Your task to perform on an android device: Add dell alienware to the cart on target, then select checkout. Image 0: 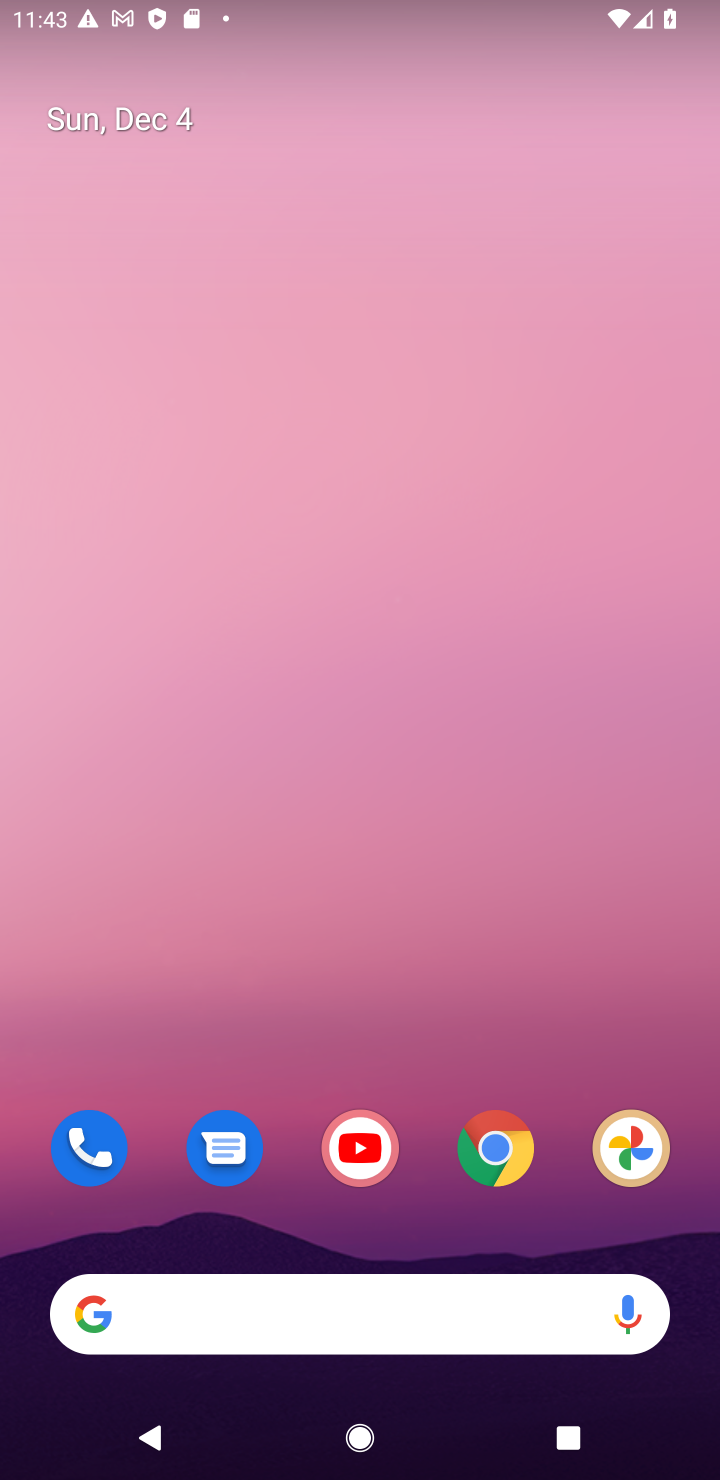
Step 0: drag from (374, 1284) to (334, 437)
Your task to perform on an android device: Add dell alienware to the cart on target, then select checkout. Image 1: 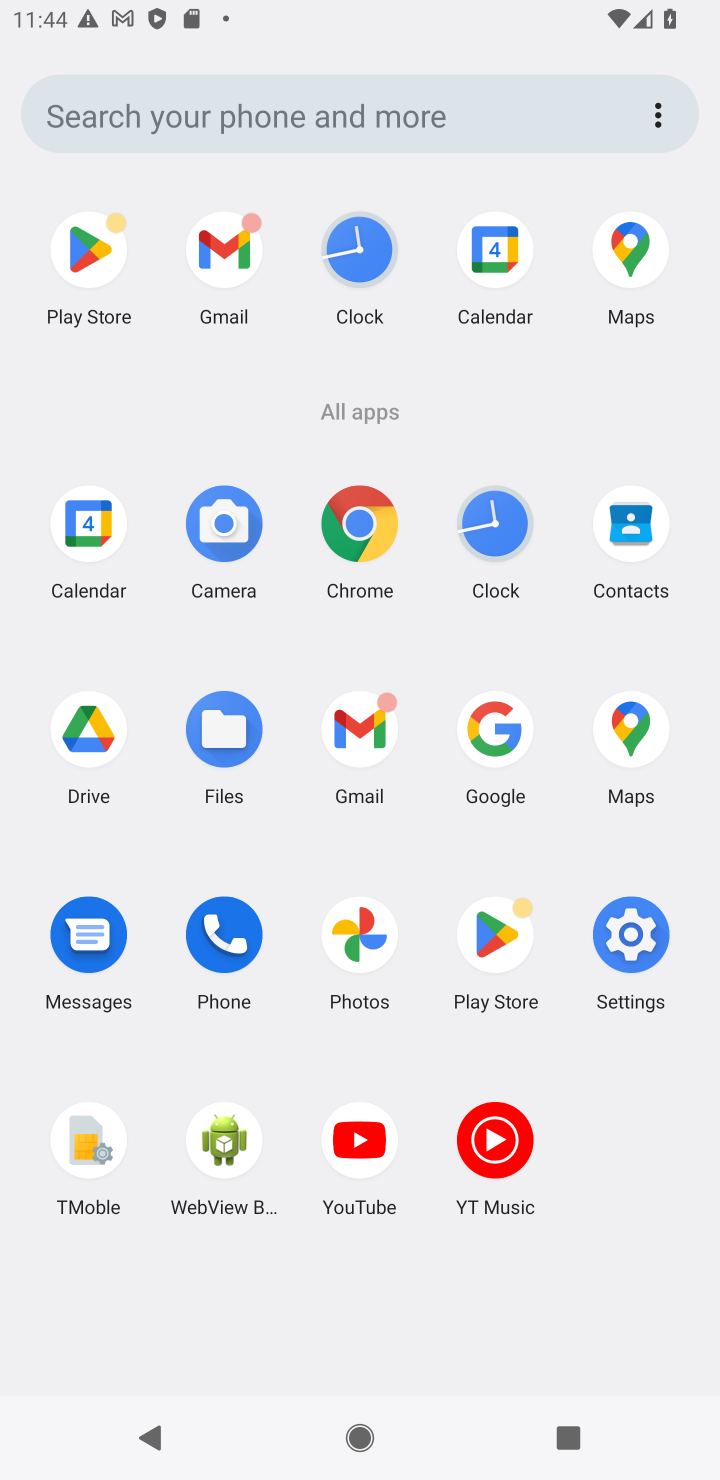
Step 1: click (487, 735)
Your task to perform on an android device: Add dell alienware to the cart on target, then select checkout. Image 2: 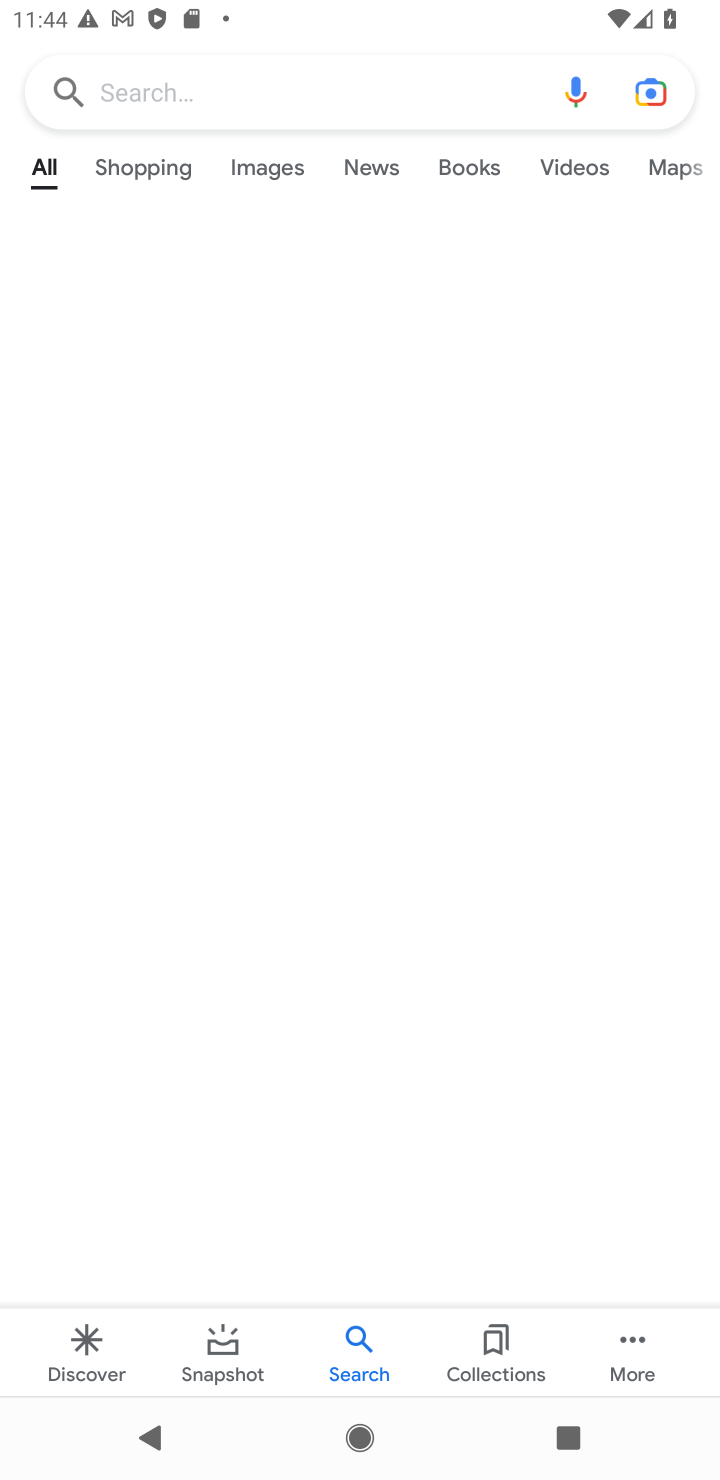
Step 2: click (220, 99)
Your task to perform on an android device: Add dell alienware to the cart on target, then select checkout. Image 3: 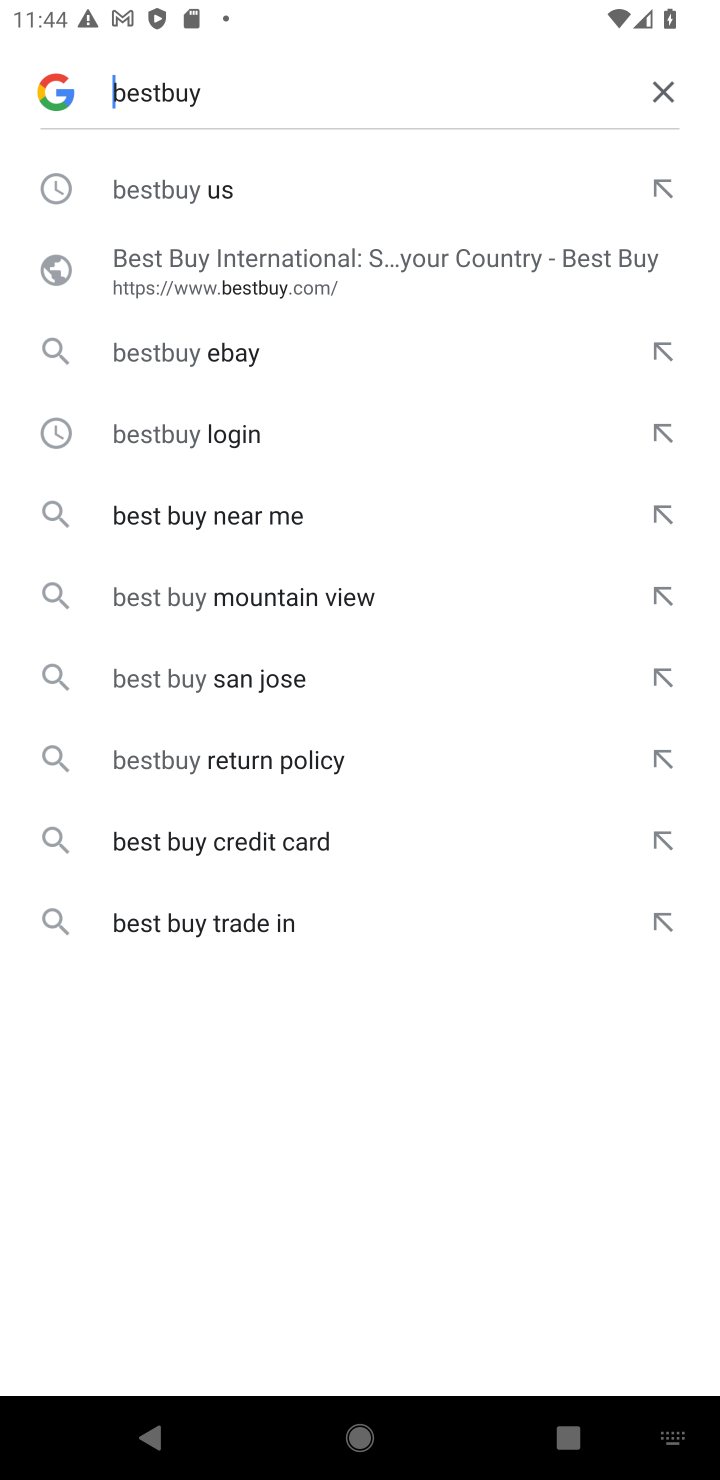
Step 3: click (667, 83)
Your task to perform on an android device: Add dell alienware to the cart on target, then select checkout. Image 4: 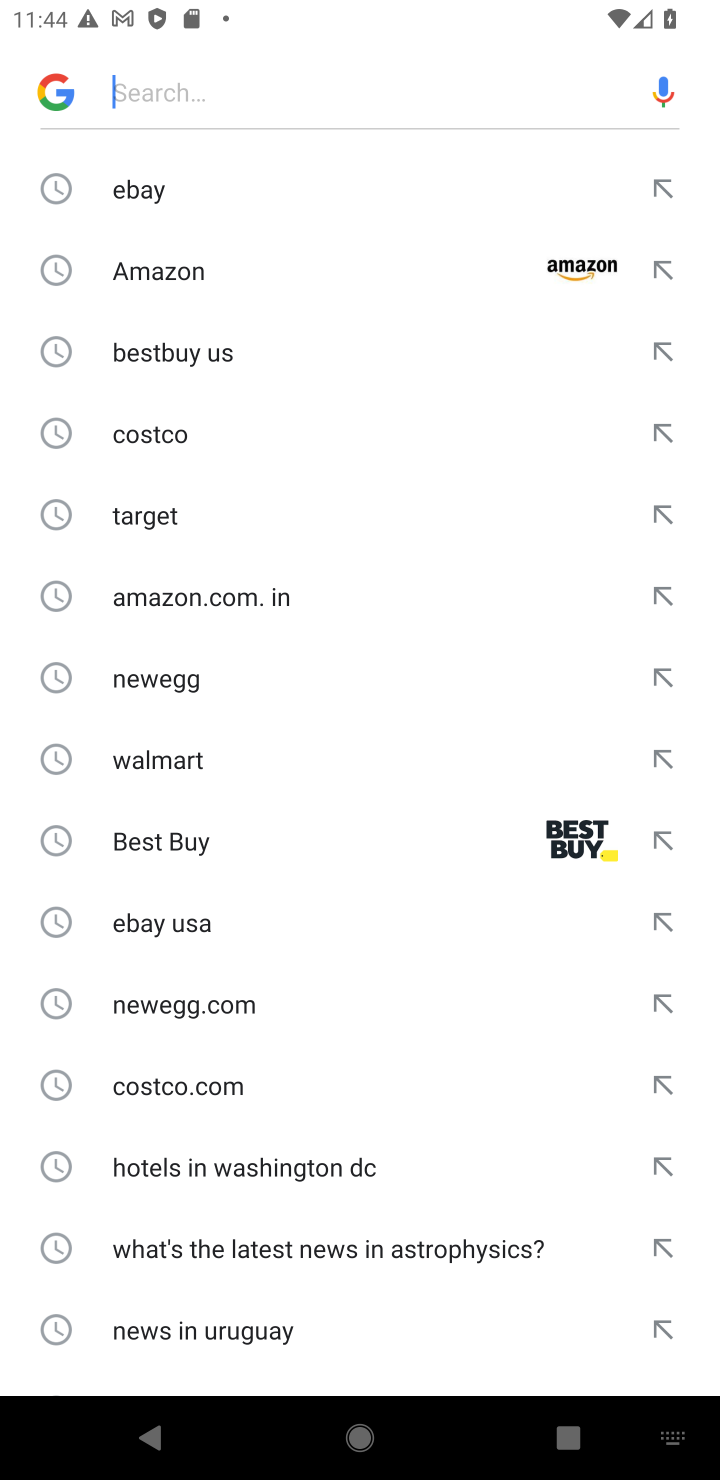
Step 4: click (150, 514)
Your task to perform on an android device: Add dell alienware to the cart on target, then select checkout. Image 5: 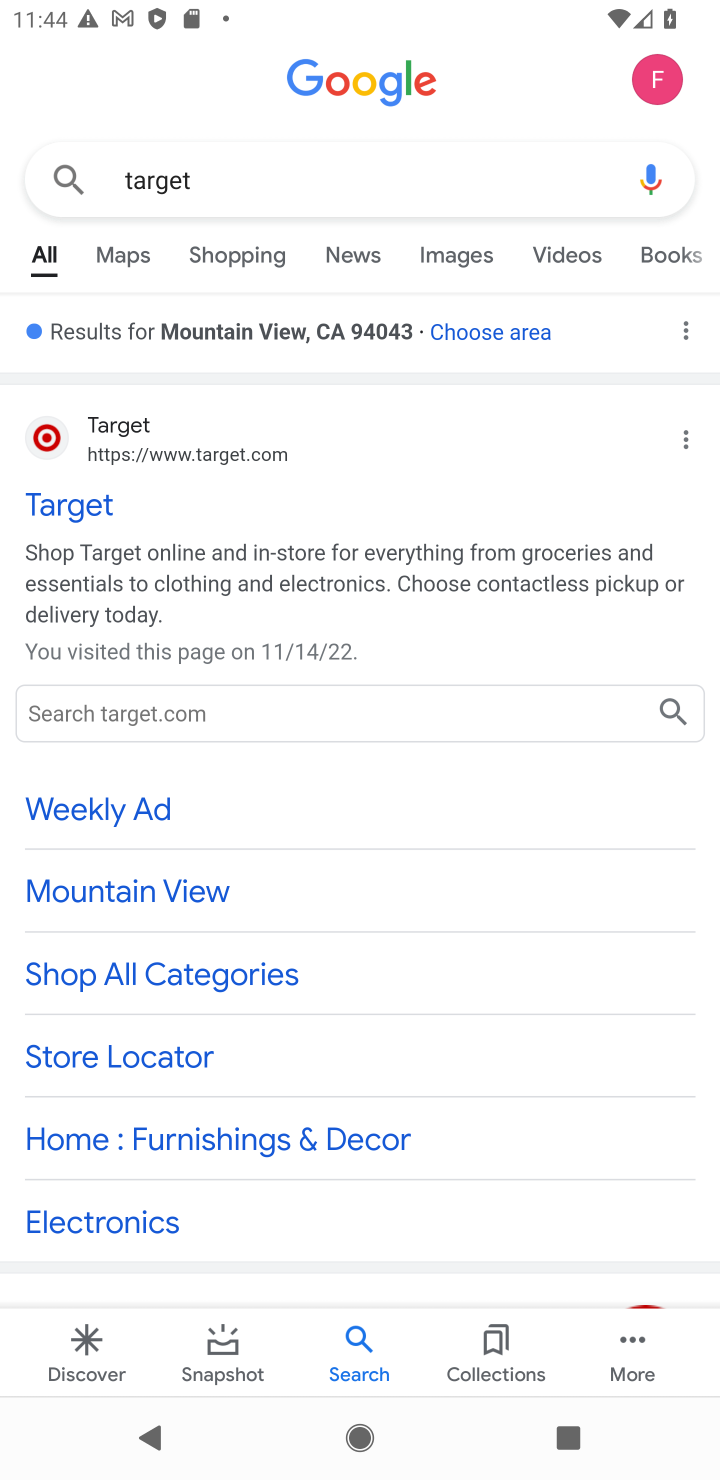
Step 5: click (92, 496)
Your task to perform on an android device: Add dell alienware to the cart on target, then select checkout. Image 6: 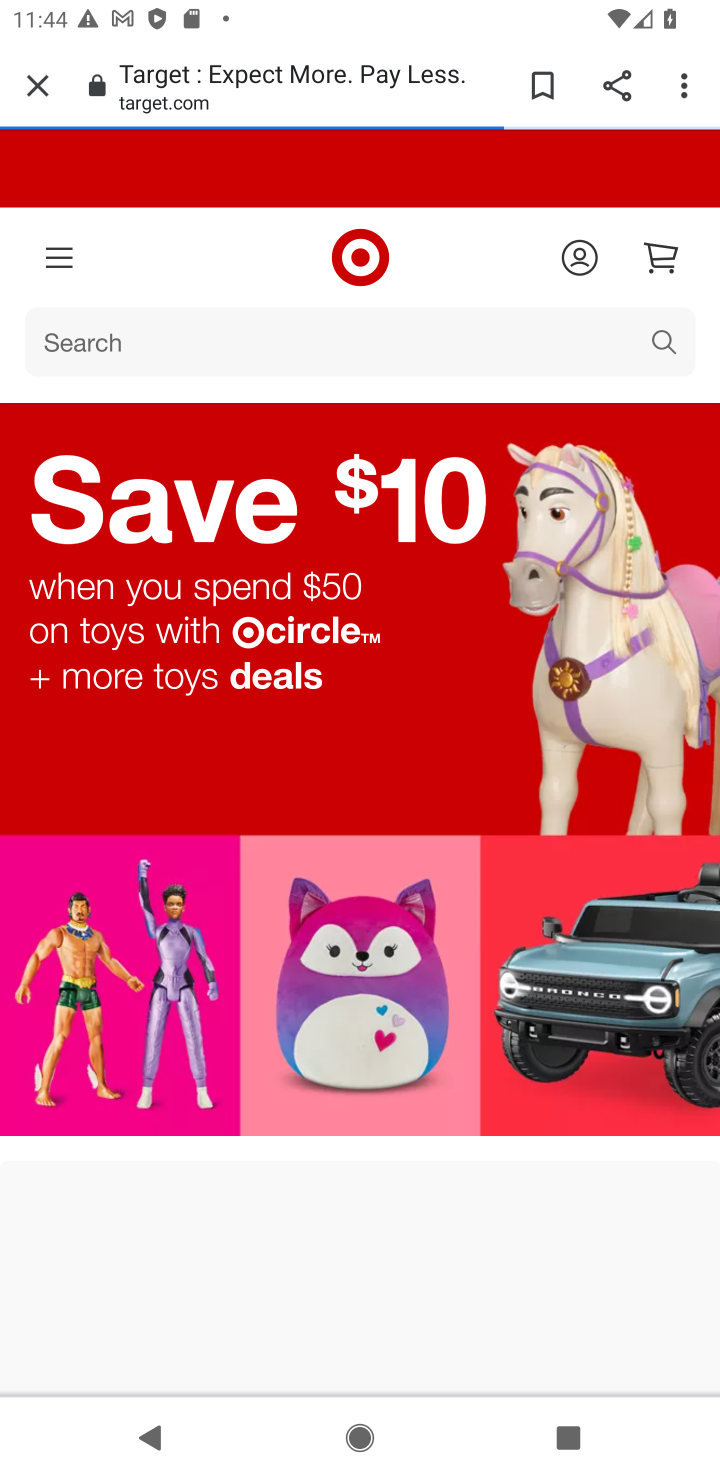
Step 6: click (510, 350)
Your task to perform on an android device: Add dell alienware to the cart on target, then select checkout. Image 7: 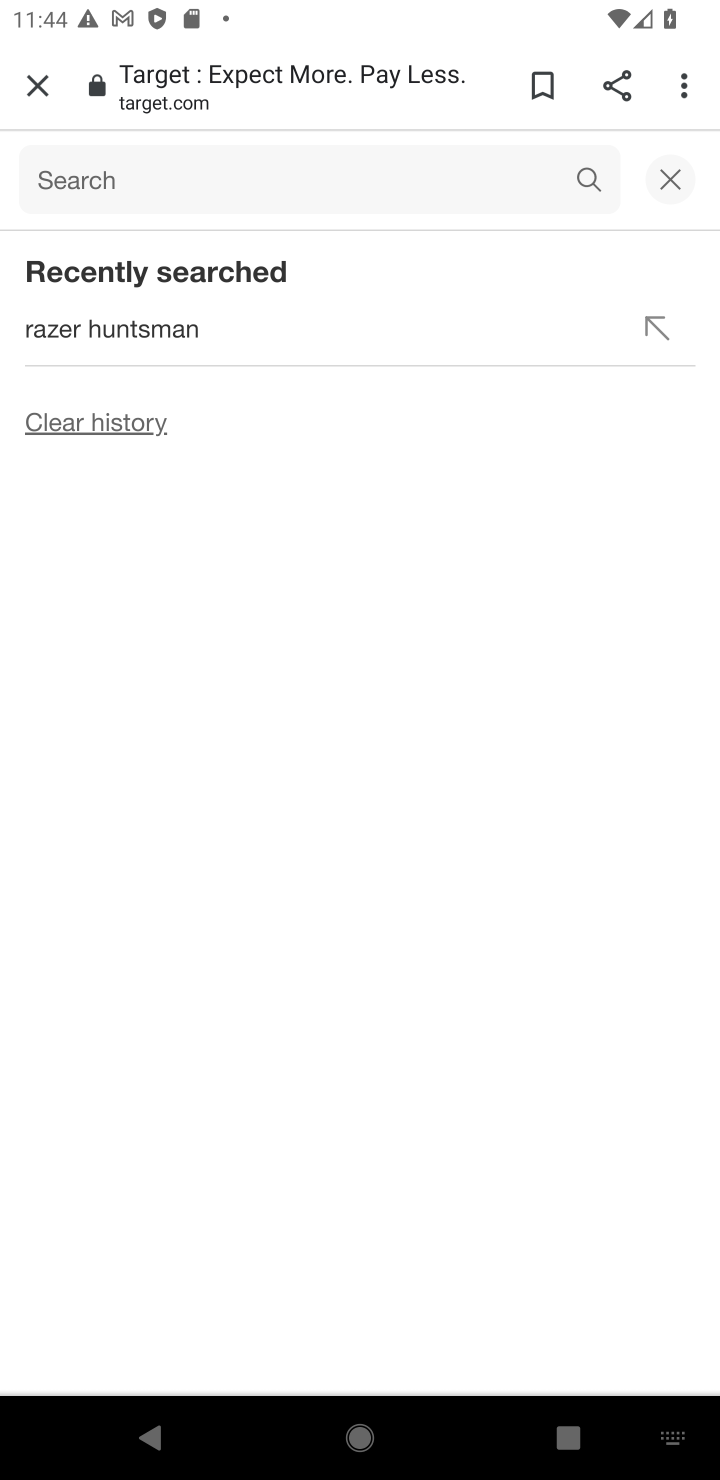
Step 7: type "dell alienware"
Your task to perform on an android device: Add dell alienware to the cart on target, then select checkout. Image 8: 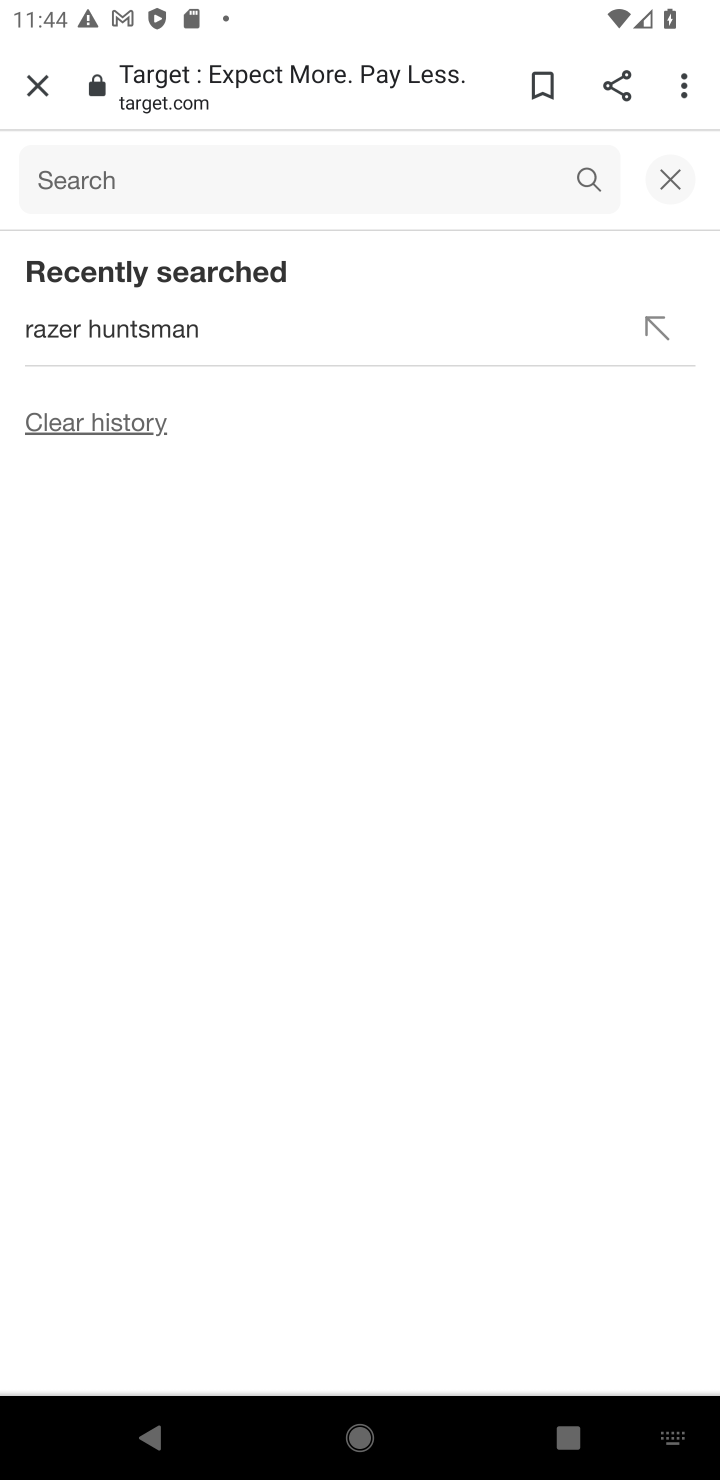
Step 8: click (588, 178)
Your task to perform on an android device: Add dell alienware to the cart on target, then select checkout. Image 9: 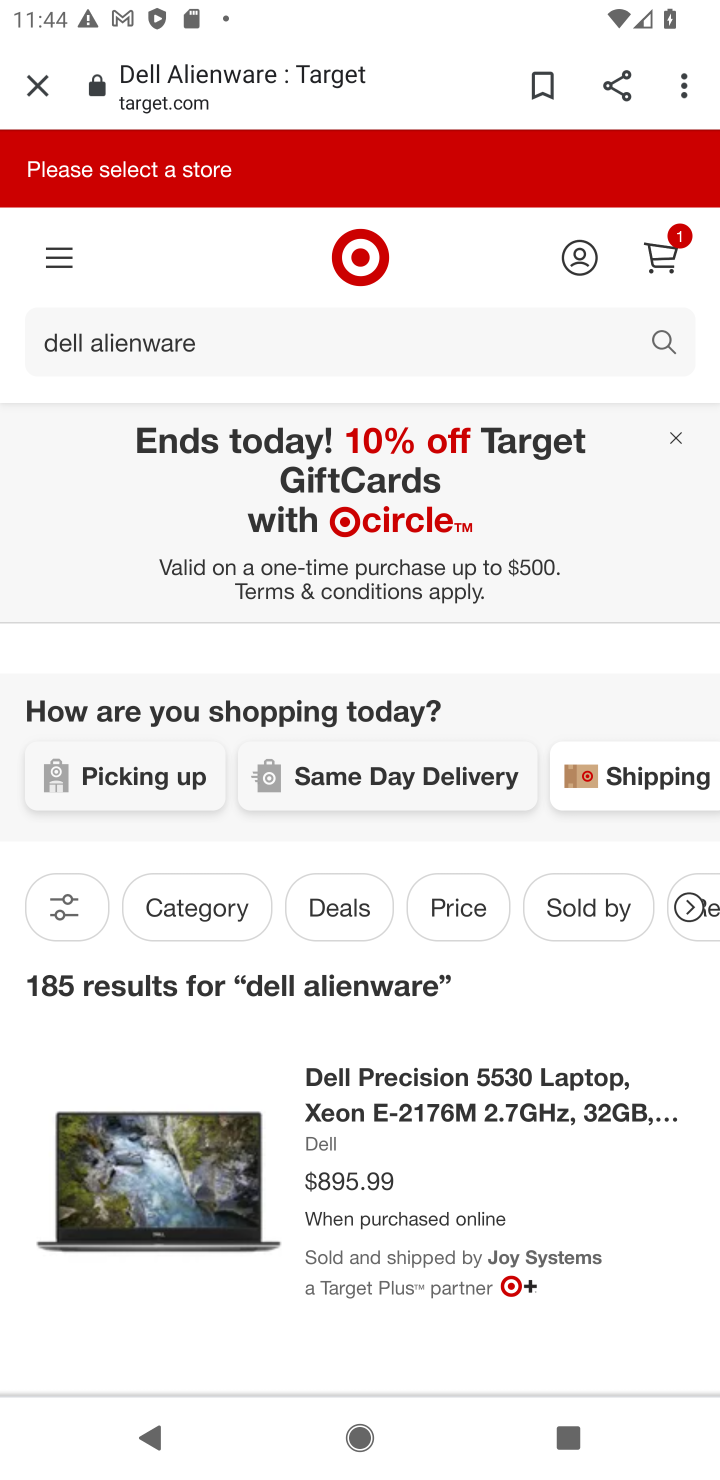
Step 9: drag from (473, 1159) to (464, 598)
Your task to perform on an android device: Add dell alienware to the cart on target, then select checkout. Image 10: 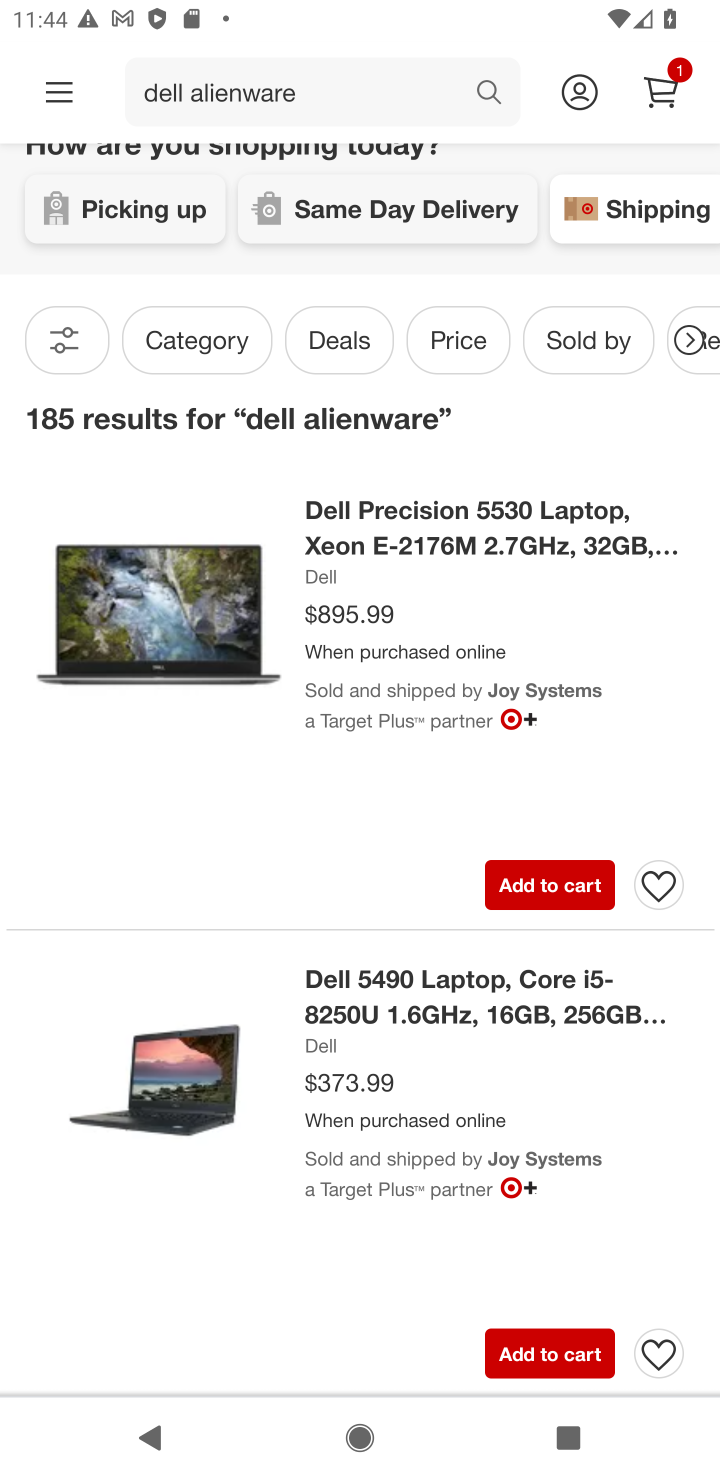
Step 10: click (559, 892)
Your task to perform on an android device: Add dell alienware to the cart on target, then select checkout. Image 11: 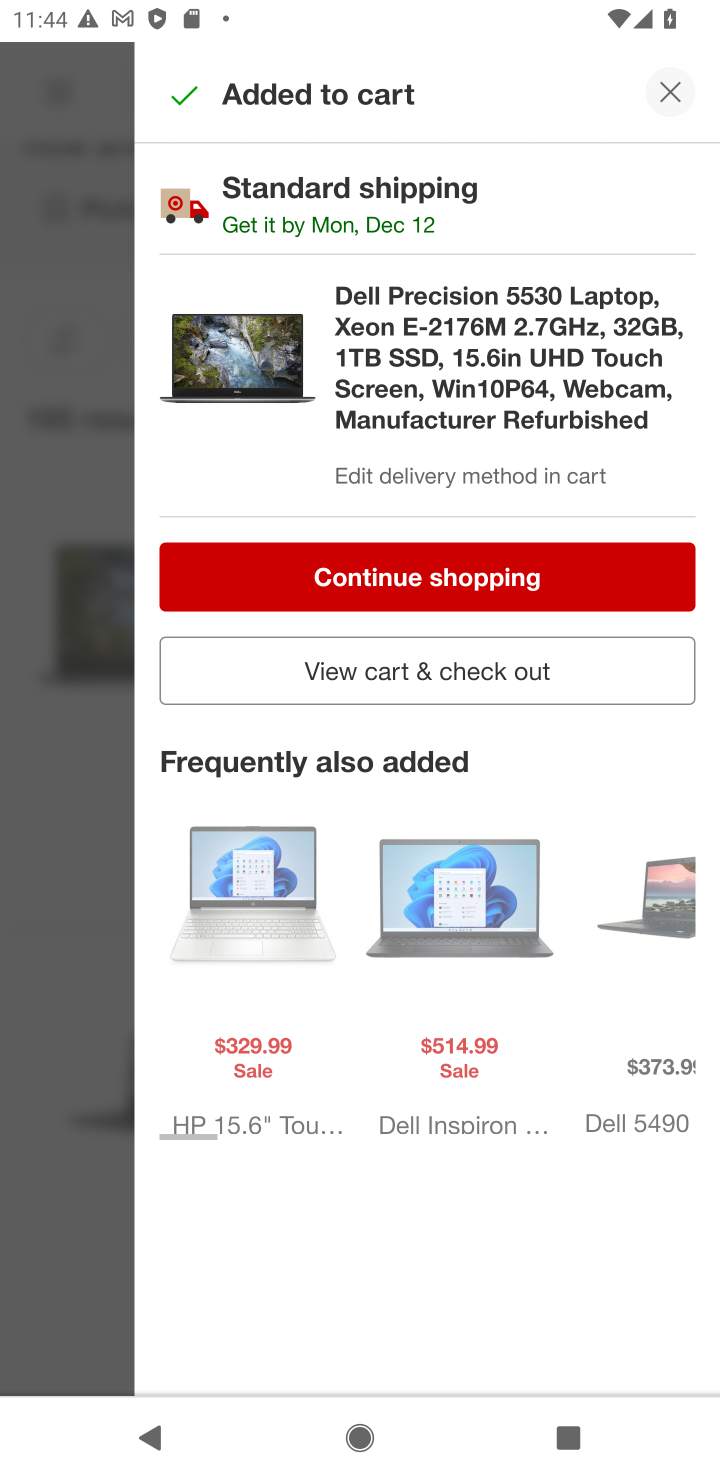
Step 11: click (665, 110)
Your task to perform on an android device: Add dell alienware to the cart on target, then select checkout. Image 12: 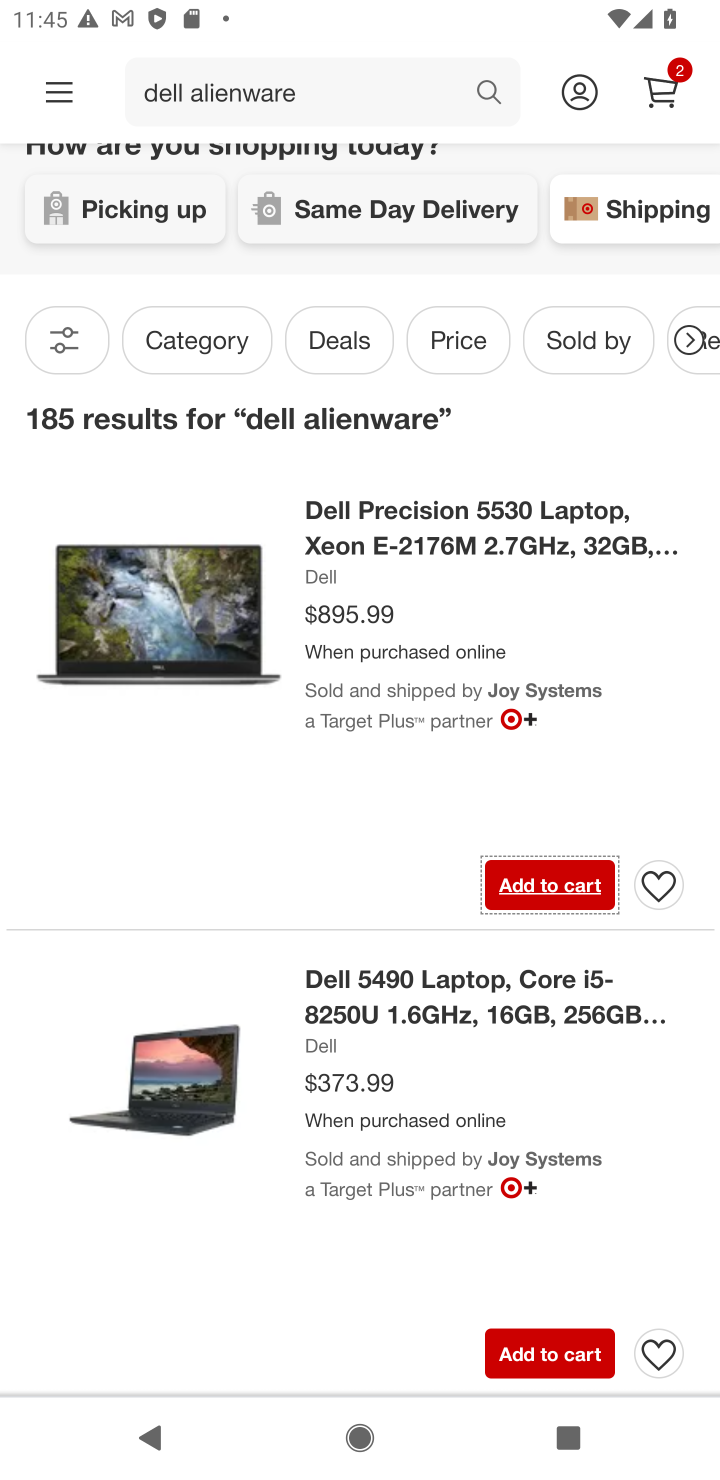
Step 12: click (667, 93)
Your task to perform on an android device: Add dell alienware to the cart on target, then select checkout. Image 13: 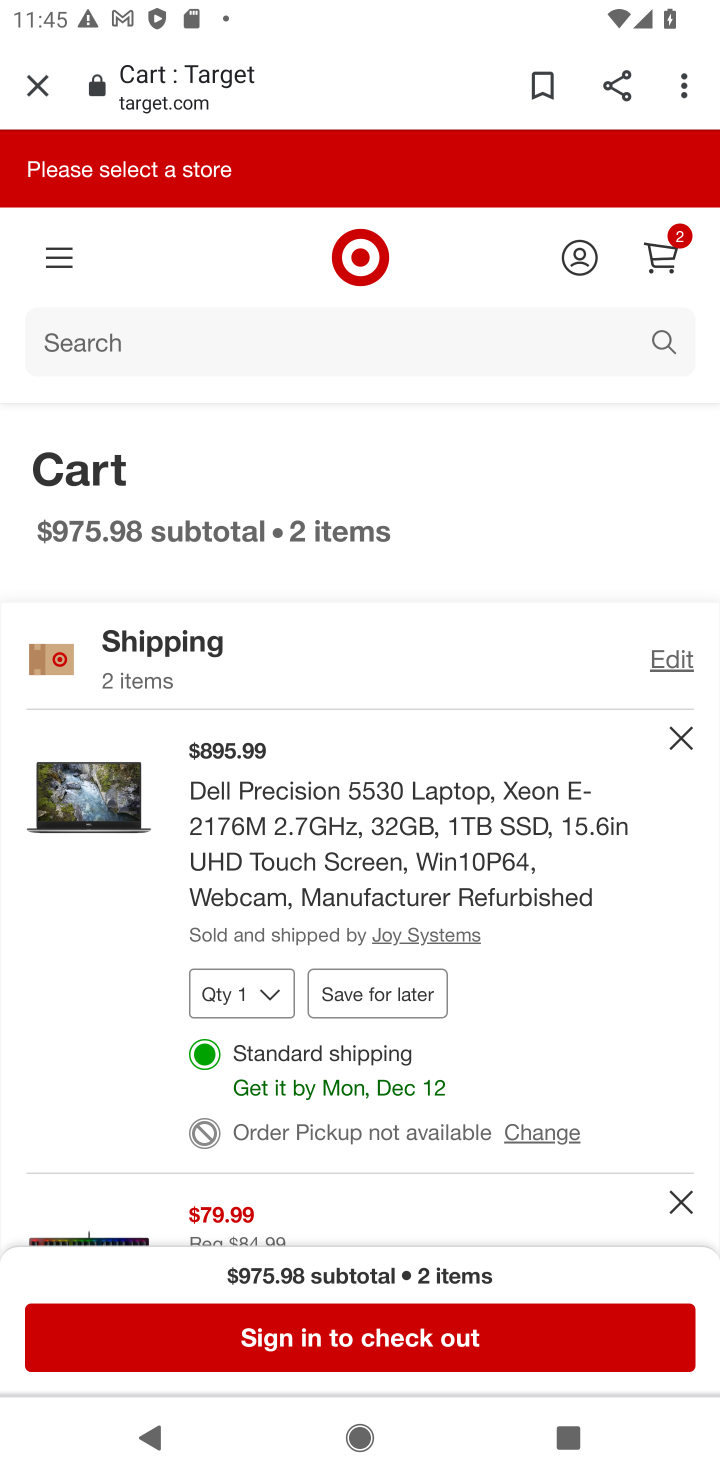
Step 13: click (418, 1352)
Your task to perform on an android device: Add dell alienware to the cart on target, then select checkout. Image 14: 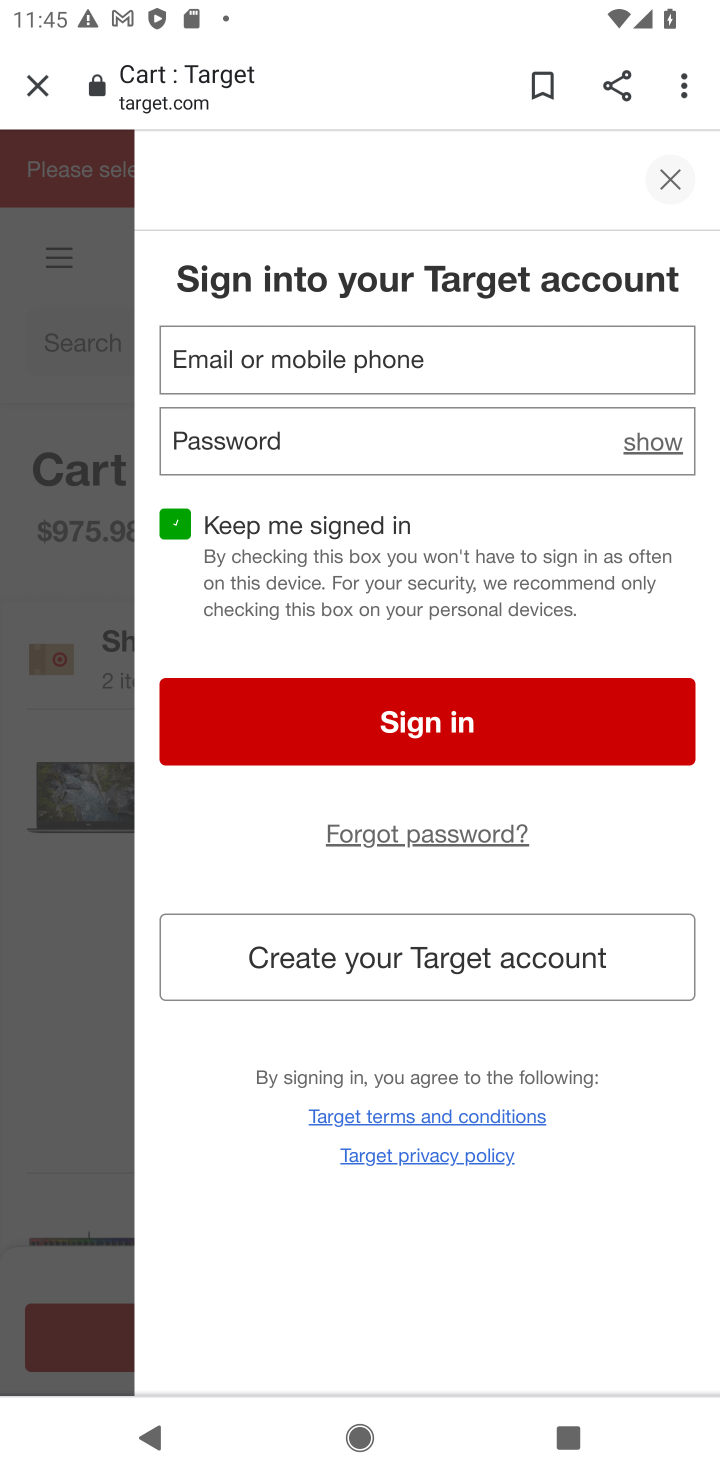
Step 14: task complete